Your task to perform on an android device: clear history in the chrome app Image 0: 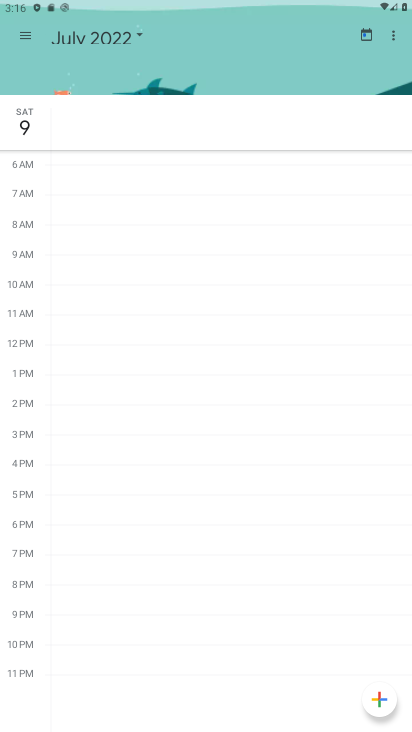
Step 0: press home button
Your task to perform on an android device: clear history in the chrome app Image 1: 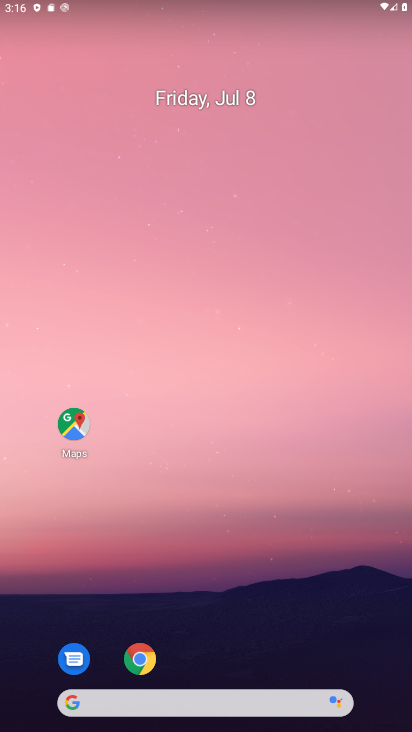
Step 1: drag from (261, 344) to (279, 56)
Your task to perform on an android device: clear history in the chrome app Image 2: 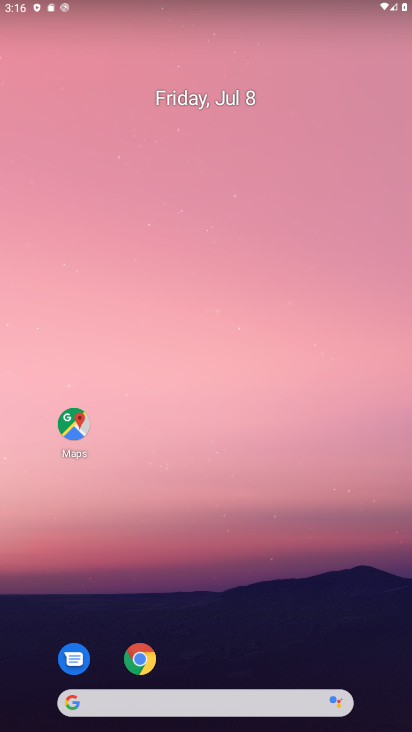
Step 2: drag from (253, 645) to (187, 50)
Your task to perform on an android device: clear history in the chrome app Image 3: 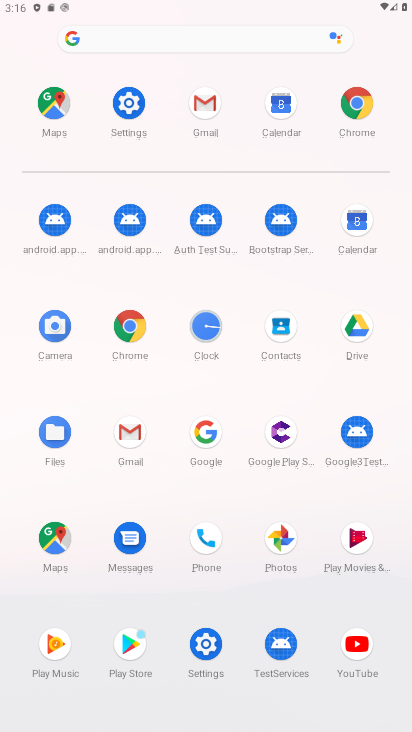
Step 3: click (127, 349)
Your task to perform on an android device: clear history in the chrome app Image 4: 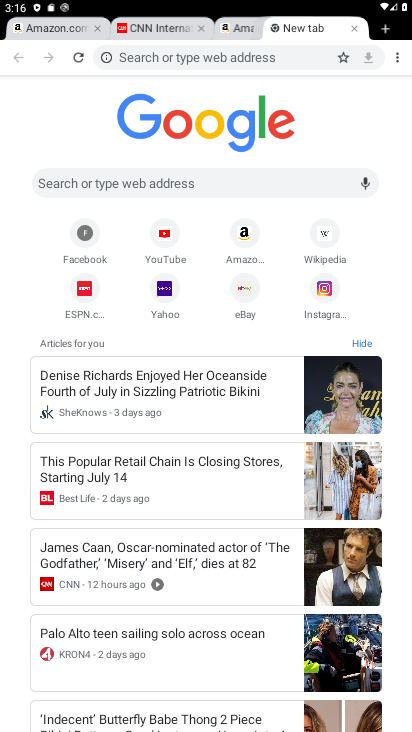
Step 4: click (403, 58)
Your task to perform on an android device: clear history in the chrome app Image 5: 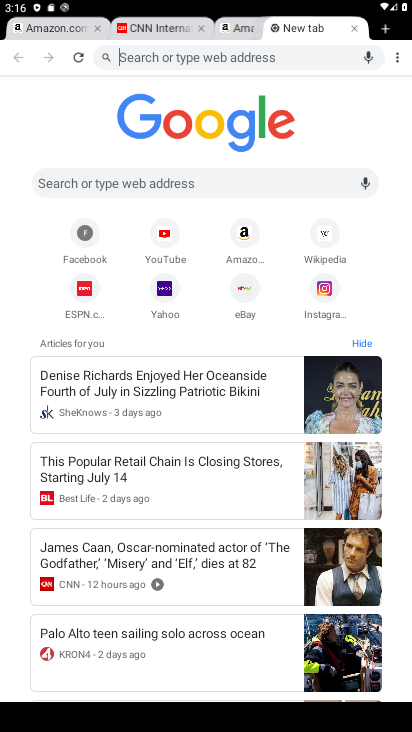
Step 5: click (395, 63)
Your task to perform on an android device: clear history in the chrome app Image 6: 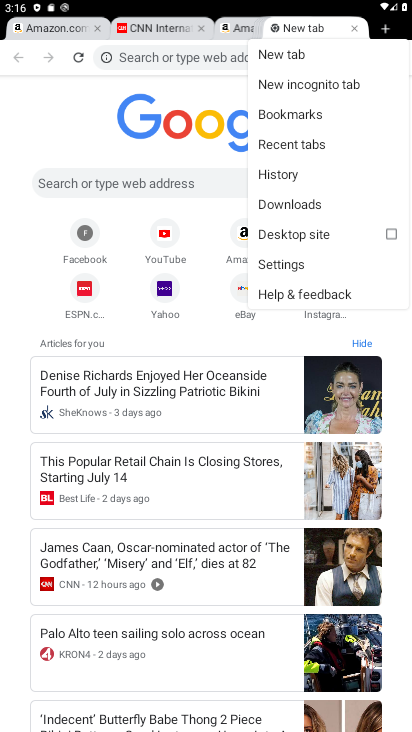
Step 6: click (310, 176)
Your task to perform on an android device: clear history in the chrome app Image 7: 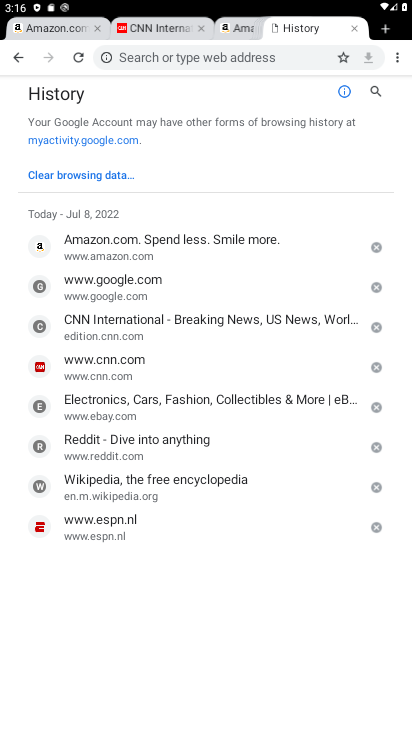
Step 7: click (119, 181)
Your task to perform on an android device: clear history in the chrome app Image 8: 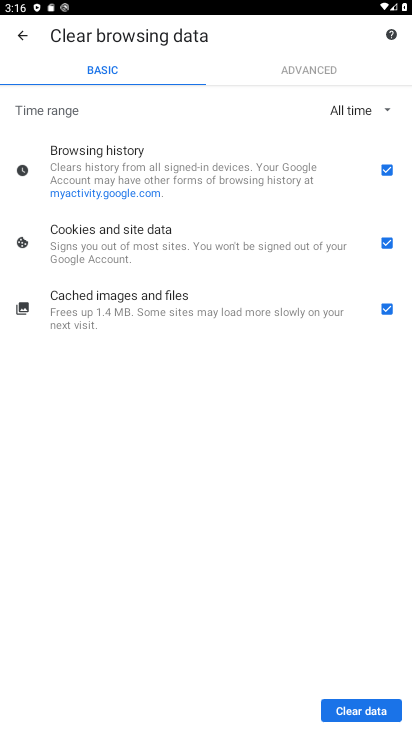
Step 8: click (380, 705)
Your task to perform on an android device: clear history in the chrome app Image 9: 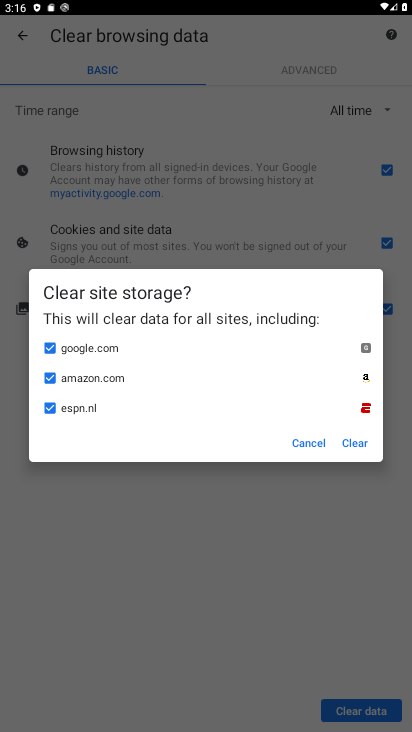
Step 9: click (360, 446)
Your task to perform on an android device: clear history in the chrome app Image 10: 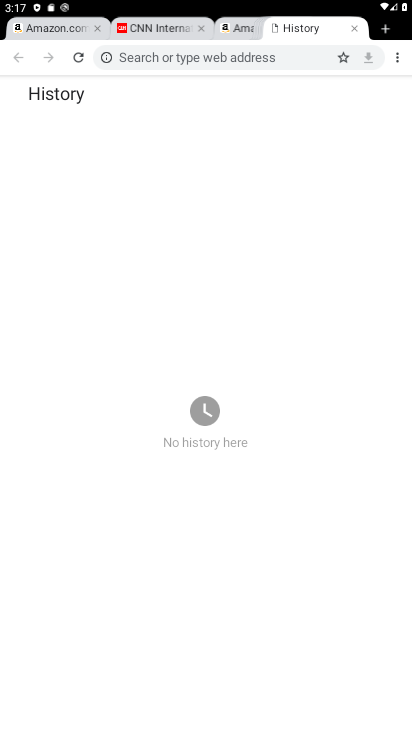
Step 10: task complete